Your task to perform on an android device: turn on data saver in the chrome app Image 0: 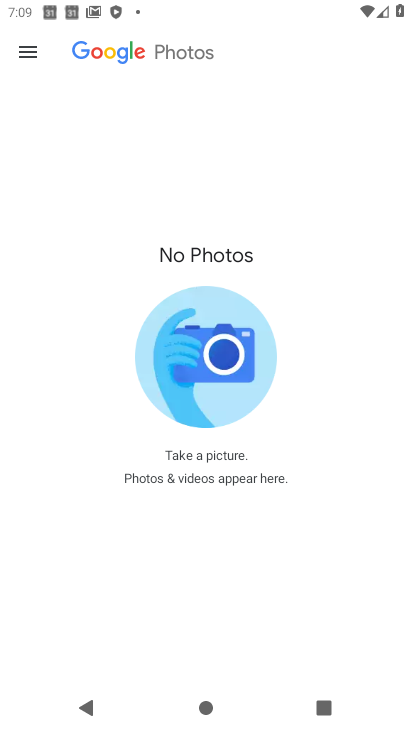
Step 0: press home button
Your task to perform on an android device: turn on data saver in the chrome app Image 1: 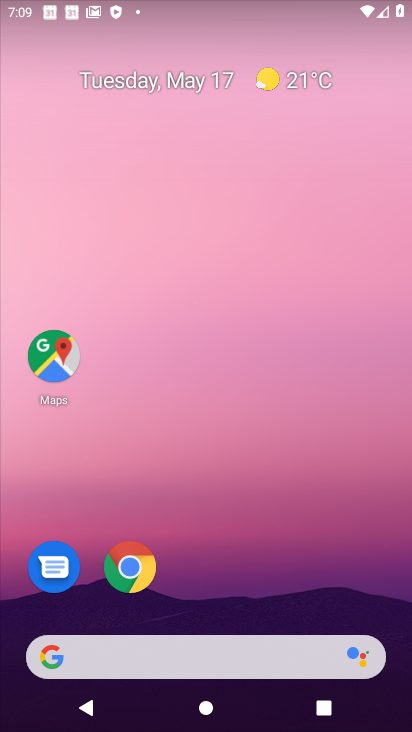
Step 1: click (121, 558)
Your task to perform on an android device: turn on data saver in the chrome app Image 2: 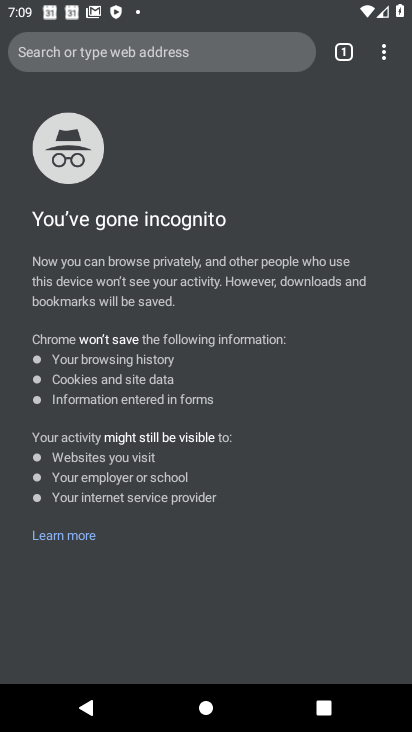
Step 2: click (380, 54)
Your task to perform on an android device: turn on data saver in the chrome app Image 3: 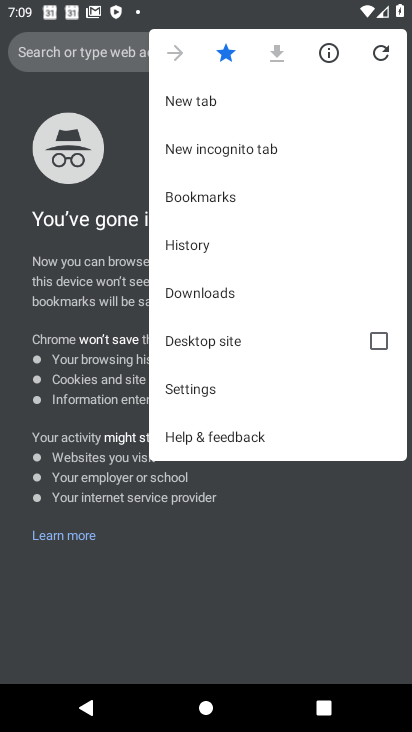
Step 3: click (208, 388)
Your task to perform on an android device: turn on data saver in the chrome app Image 4: 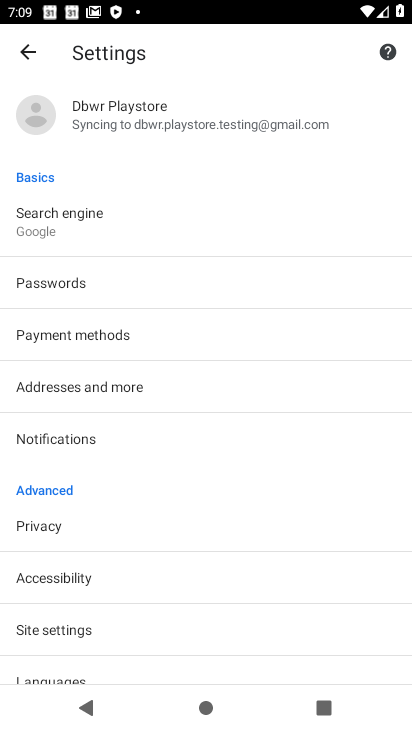
Step 4: drag from (112, 607) to (81, 219)
Your task to perform on an android device: turn on data saver in the chrome app Image 5: 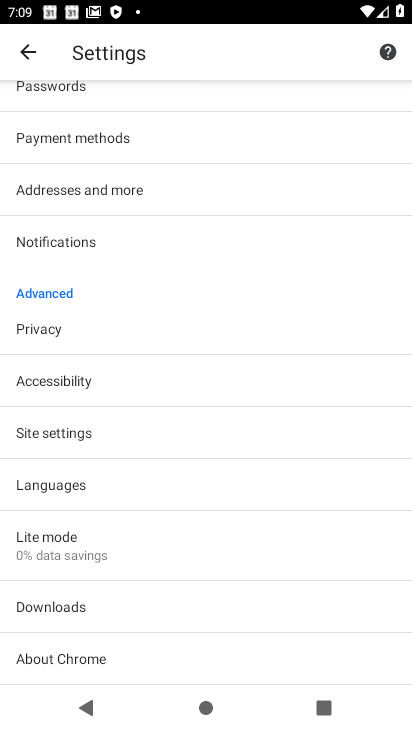
Step 5: click (68, 541)
Your task to perform on an android device: turn on data saver in the chrome app Image 6: 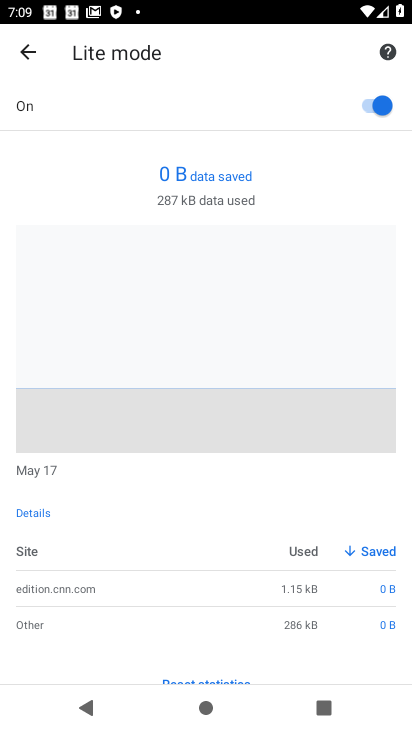
Step 6: task complete